Your task to perform on an android device: star an email in the gmail app Image 0: 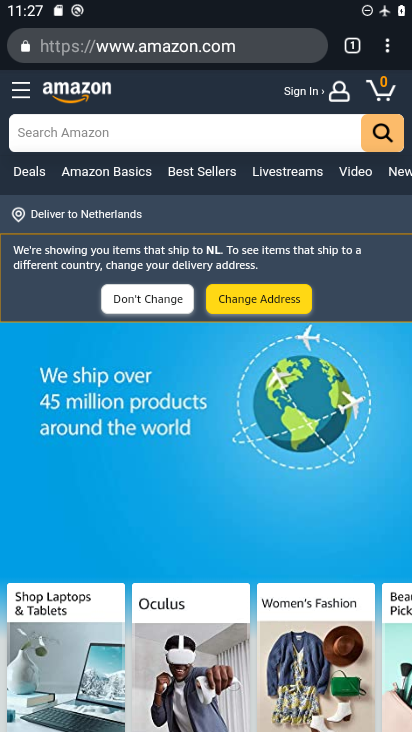
Step 0: press home button
Your task to perform on an android device: star an email in the gmail app Image 1: 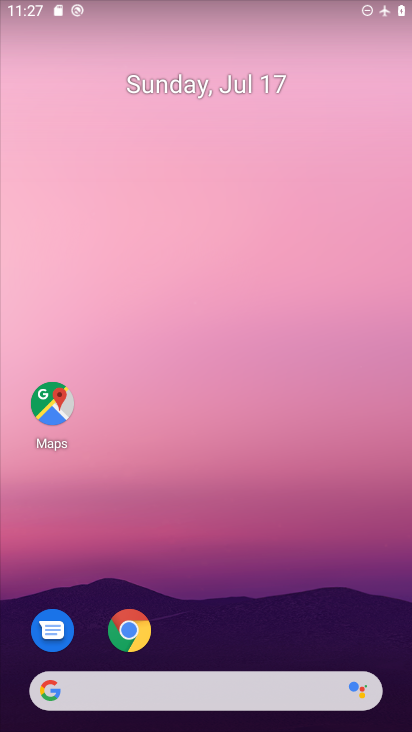
Step 1: click (192, 128)
Your task to perform on an android device: star an email in the gmail app Image 2: 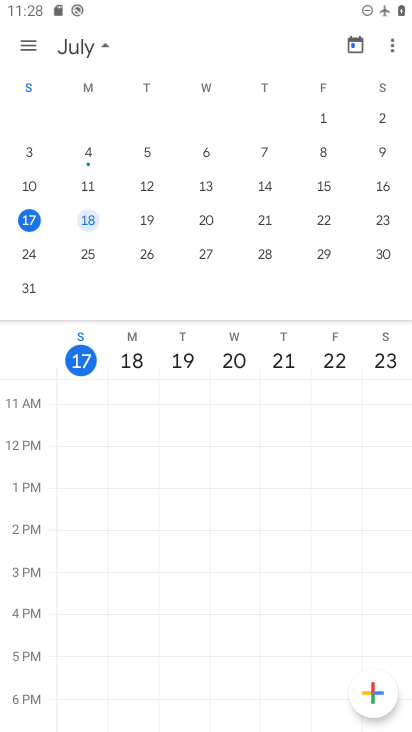
Step 2: press home button
Your task to perform on an android device: star an email in the gmail app Image 3: 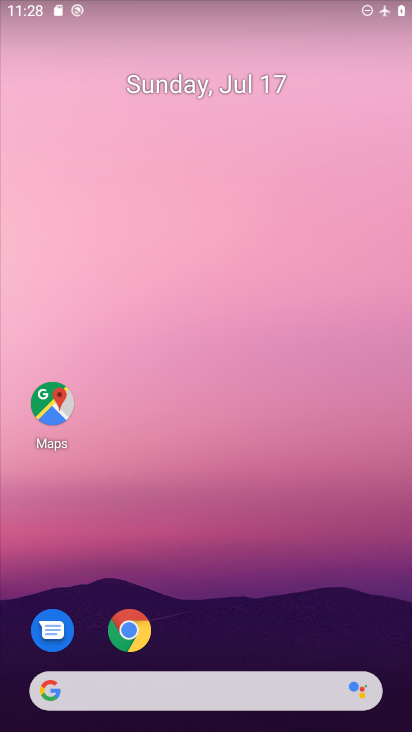
Step 3: press home button
Your task to perform on an android device: star an email in the gmail app Image 4: 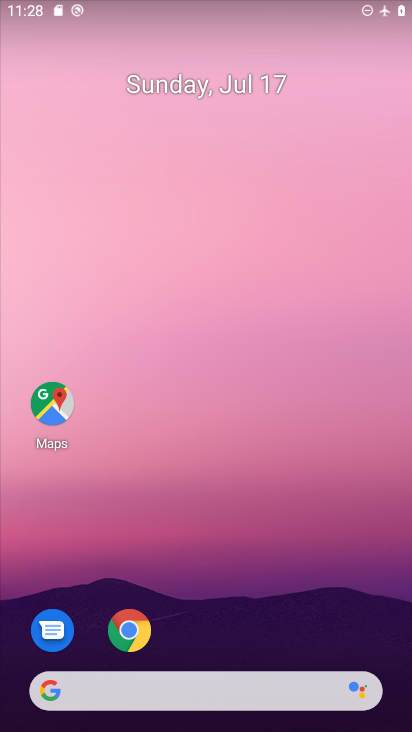
Step 4: click (183, 30)
Your task to perform on an android device: star an email in the gmail app Image 5: 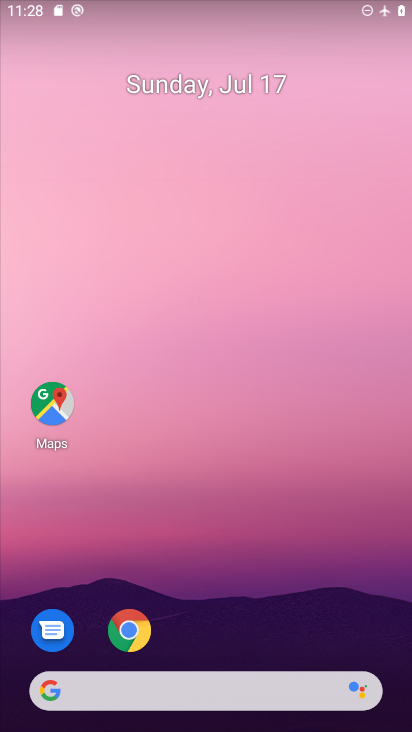
Step 5: drag from (198, 621) to (201, 210)
Your task to perform on an android device: star an email in the gmail app Image 6: 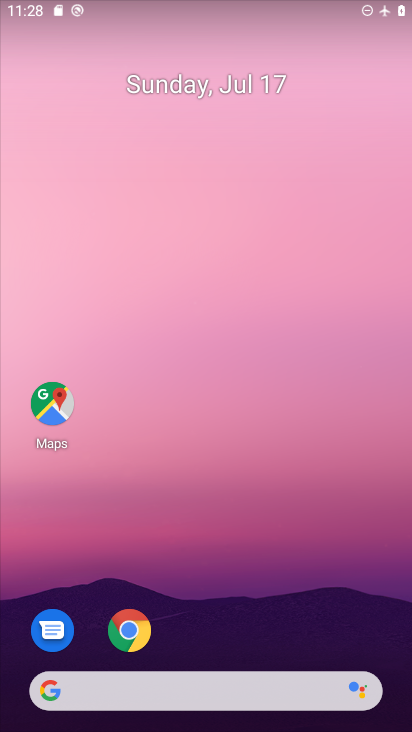
Step 6: drag from (195, 601) to (251, 137)
Your task to perform on an android device: star an email in the gmail app Image 7: 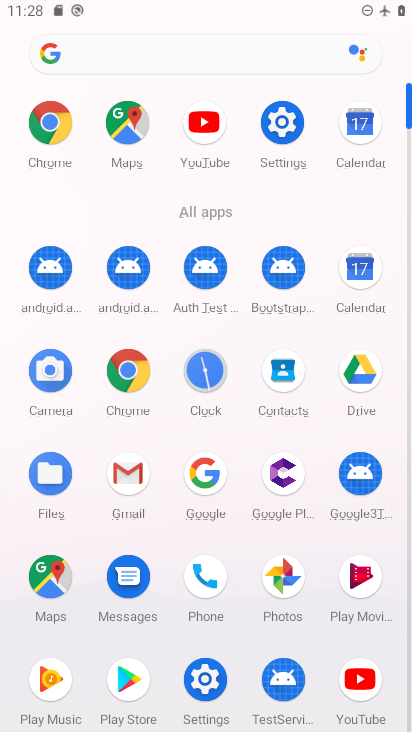
Step 7: click (127, 492)
Your task to perform on an android device: star an email in the gmail app Image 8: 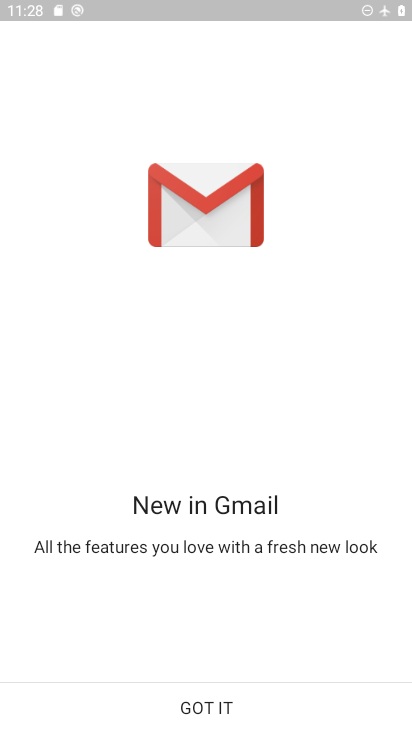
Step 8: click (196, 693)
Your task to perform on an android device: star an email in the gmail app Image 9: 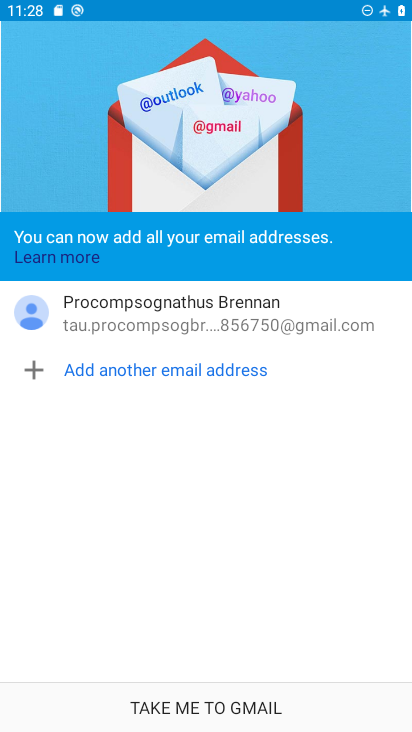
Step 9: click (196, 693)
Your task to perform on an android device: star an email in the gmail app Image 10: 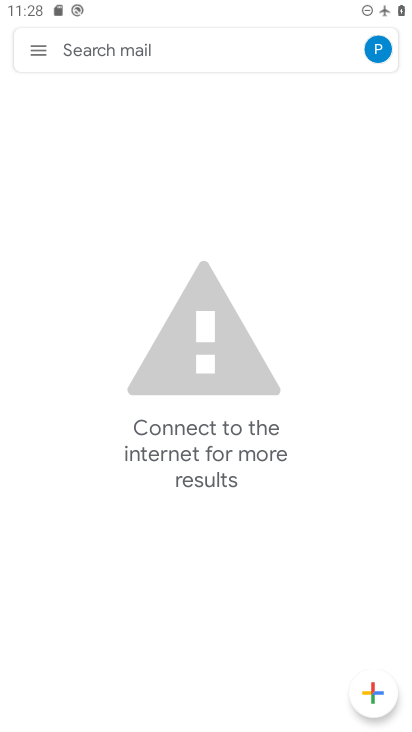
Step 10: click (35, 49)
Your task to perform on an android device: star an email in the gmail app Image 11: 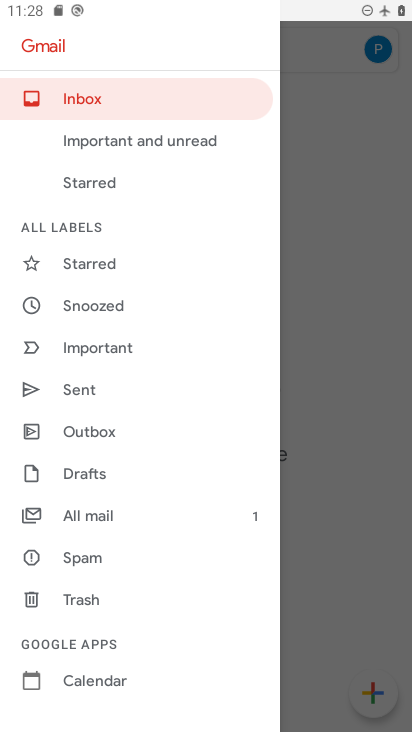
Step 11: task complete